Your task to perform on an android device: open app "Duolingo: language lessons" (install if not already installed) and enter user name: "omens@gmail.com" and password: "casks" Image 0: 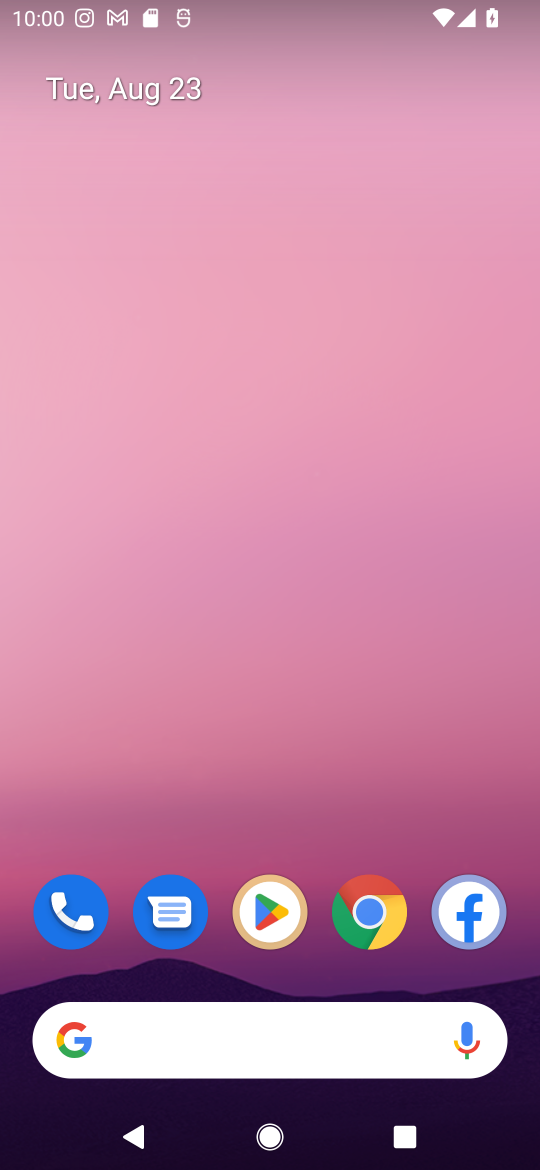
Step 0: click (272, 917)
Your task to perform on an android device: open app "Duolingo: language lessons" (install if not already installed) and enter user name: "omens@gmail.com" and password: "casks" Image 1: 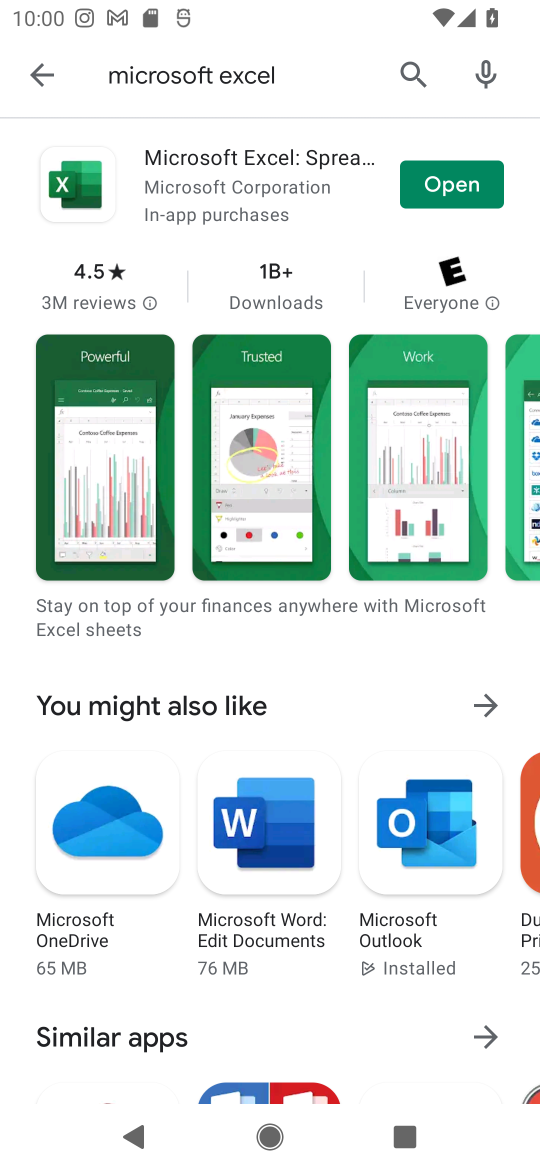
Step 1: click (407, 63)
Your task to perform on an android device: open app "Duolingo: language lessons" (install if not already installed) and enter user name: "omens@gmail.com" and password: "casks" Image 2: 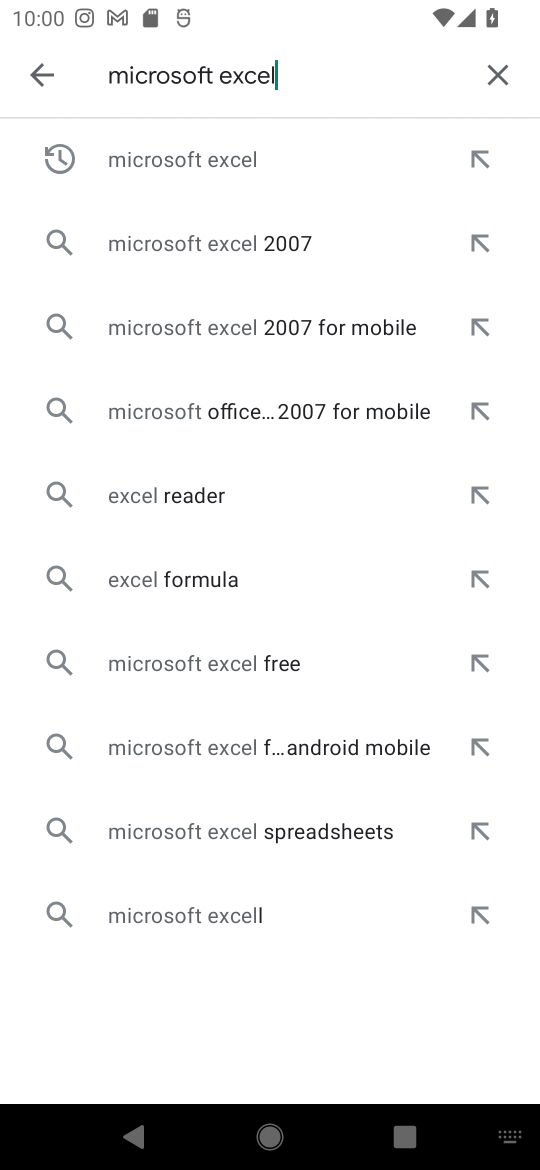
Step 2: click (495, 64)
Your task to perform on an android device: open app "Duolingo: language lessons" (install if not already installed) and enter user name: "omens@gmail.com" and password: "casks" Image 3: 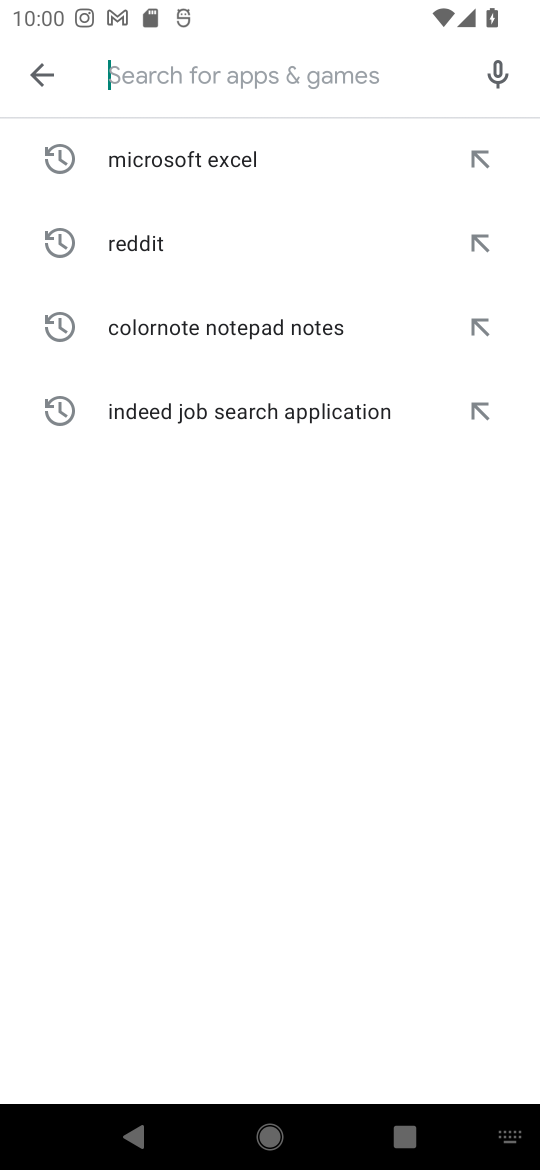
Step 3: type "Duolingo: language lessons"
Your task to perform on an android device: open app "Duolingo: language lessons" (install if not already installed) and enter user name: "omens@gmail.com" and password: "casks" Image 4: 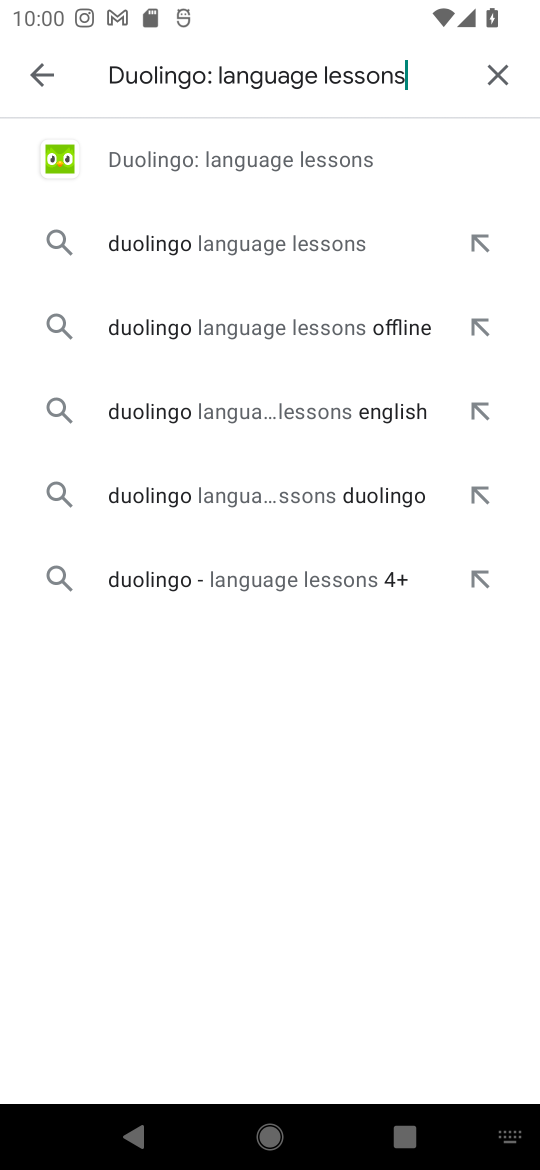
Step 4: click (313, 157)
Your task to perform on an android device: open app "Duolingo: language lessons" (install if not already installed) and enter user name: "omens@gmail.com" and password: "casks" Image 5: 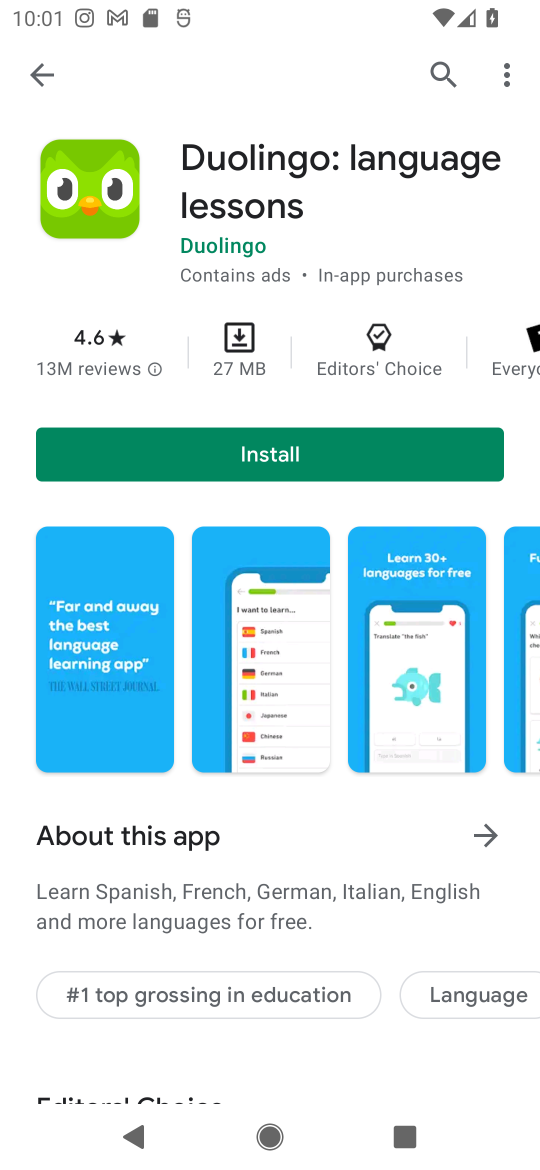
Step 5: click (263, 473)
Your task to perform on an android device: open app "Duolingo: language lessons" (install if not already installed) and enter user name: "omens@gmail.com" and password: "casks" Image 6: 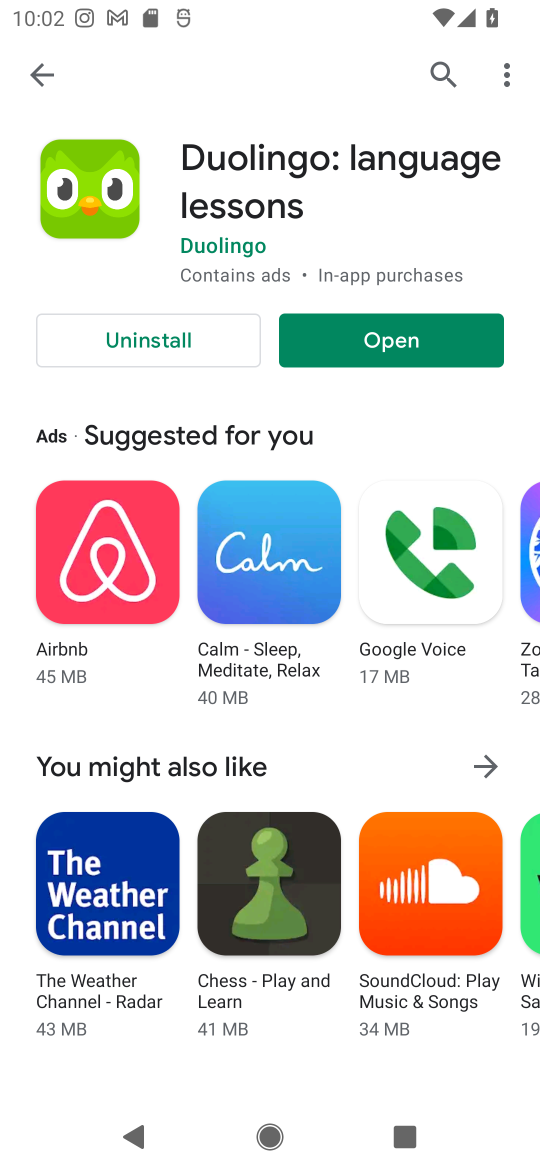
Step 6: click (392, 338)
Your task to perform on an android device: open app "Duolingo: language lessons" (install if not already installed) and enter user name: "omens@gmail.com" and password: "casks" Image 7: 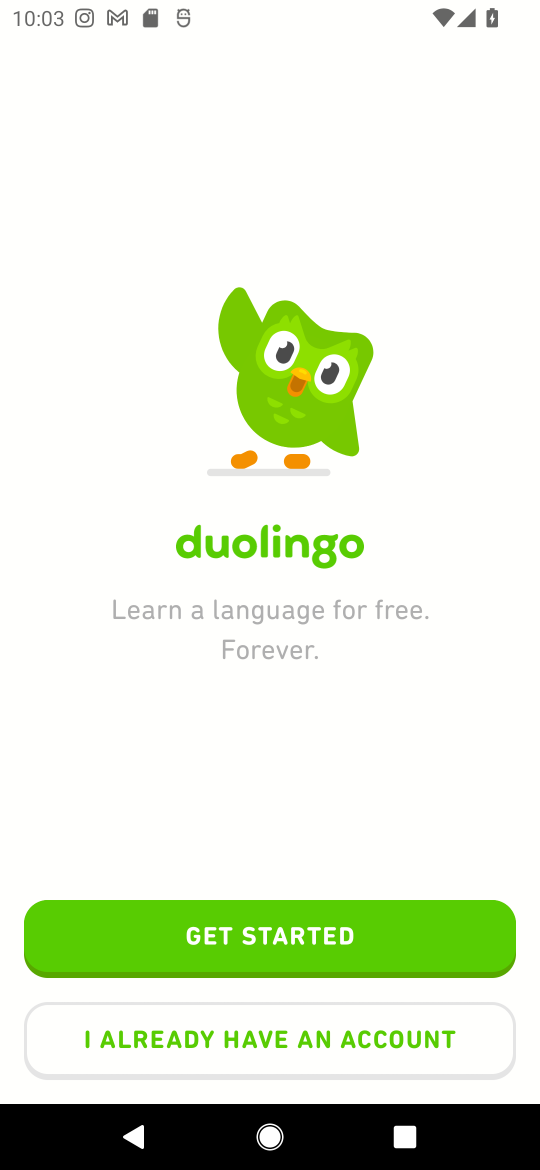
Step 7: click (242, 1022)
Your task to perform on an android device: open app "Duolingo: language lessons" (install if not already installed) and enter user name: "omens@gmail.com" and password: "casks" Image 8: 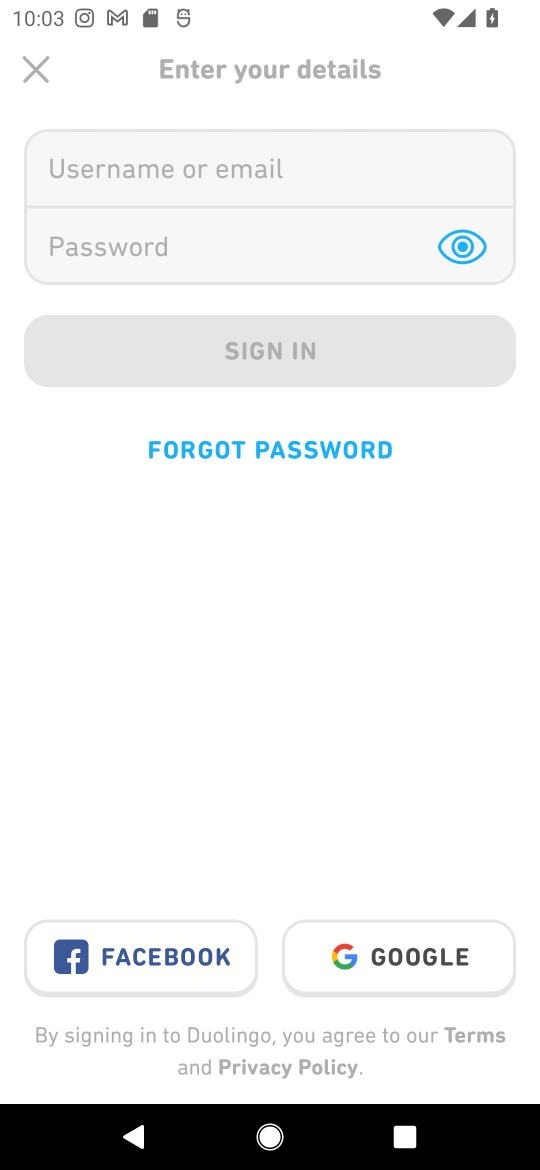
Step 8: click (147, 163)
Your task to perform on an android device: open app "Duolingo: language lessons" (install if not already installed) and enter user name: "omens@gmail.com" and password: "casks" Image 9: 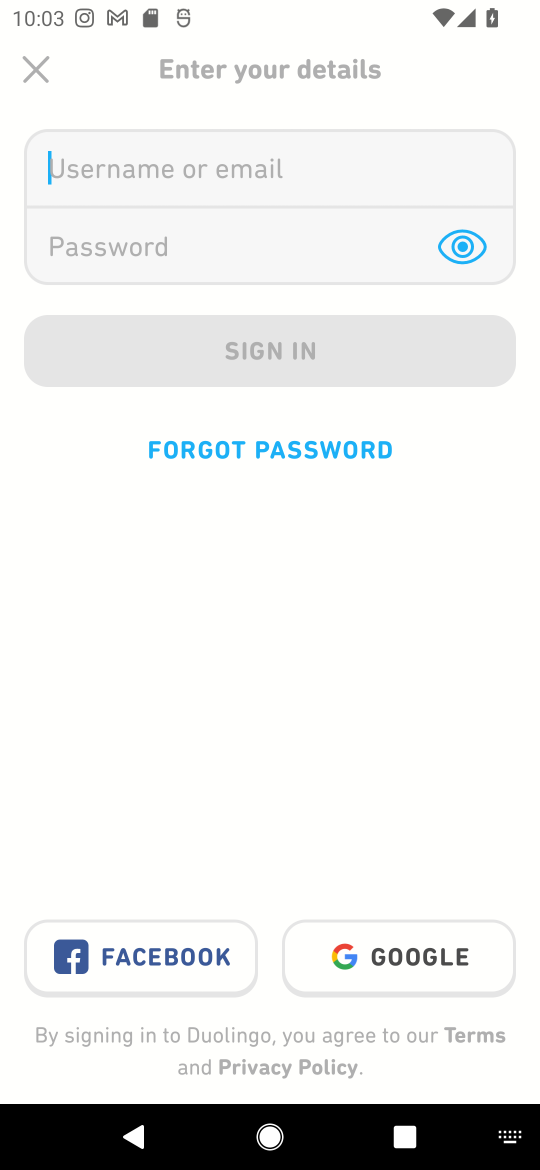
Step 9: type "Duolingo: language lesson"
Your task to perform on an android device: open app "Duolingo: language lessons" (install if not already installed) and enter user name: "omens@gmail.com" and password: "casks" Image 10: 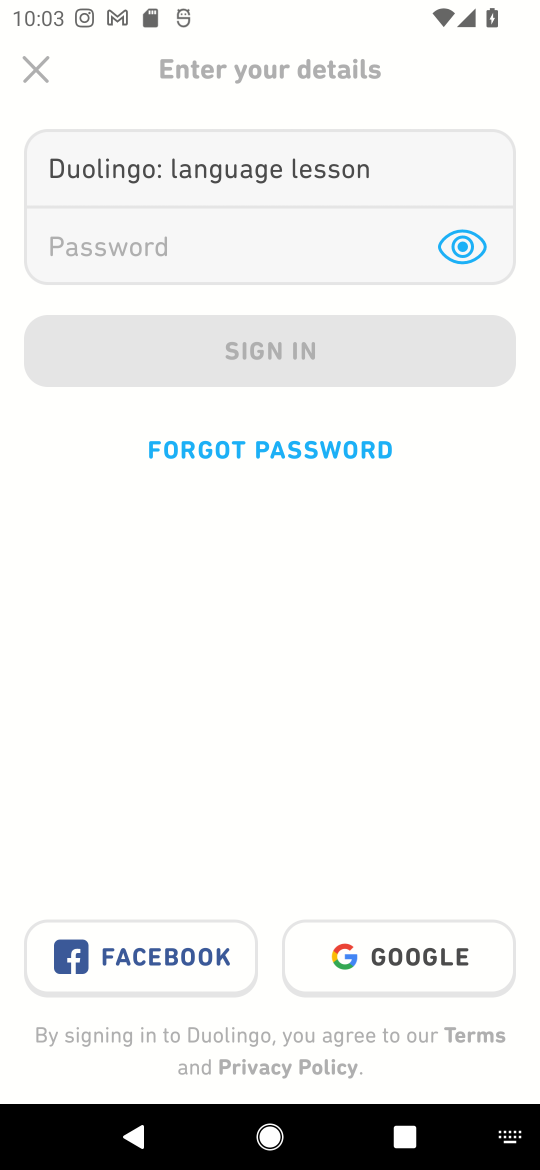
Step 10: click (219, 234)
Your task to perform on an android device: open app "Duolingo: language lessons" (install if not already installed) and enter user name: "omens@gmail.com" and password: "casks" Image 11: 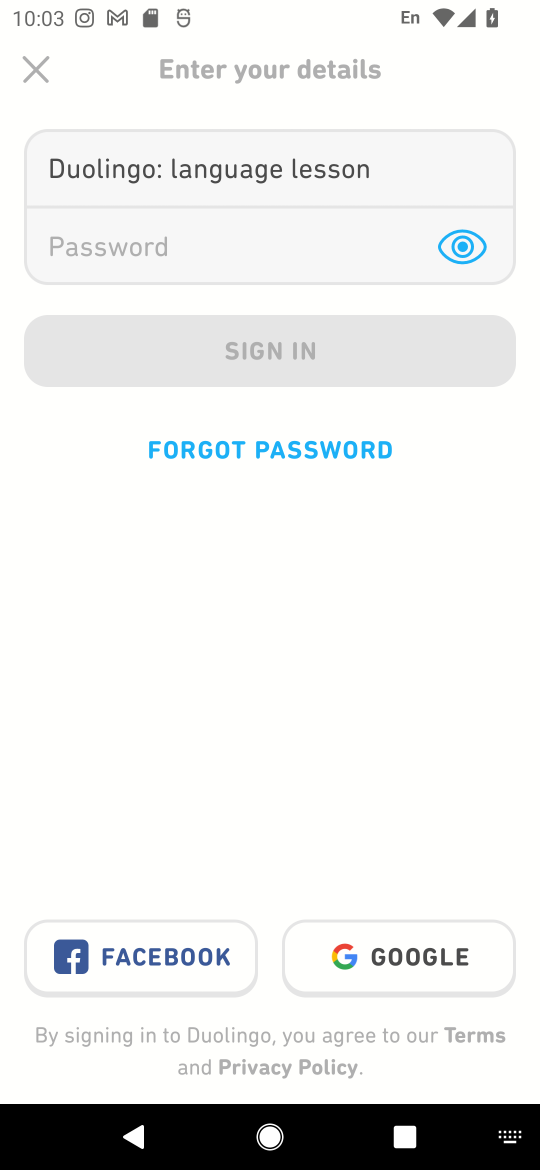
Step 11: type "casks"
Your task to perform on an android device: open app "Duolingo: language lessons" (install if not already installed) and enter user name: "omens@gmail.com" and password: "casks" Image 12: 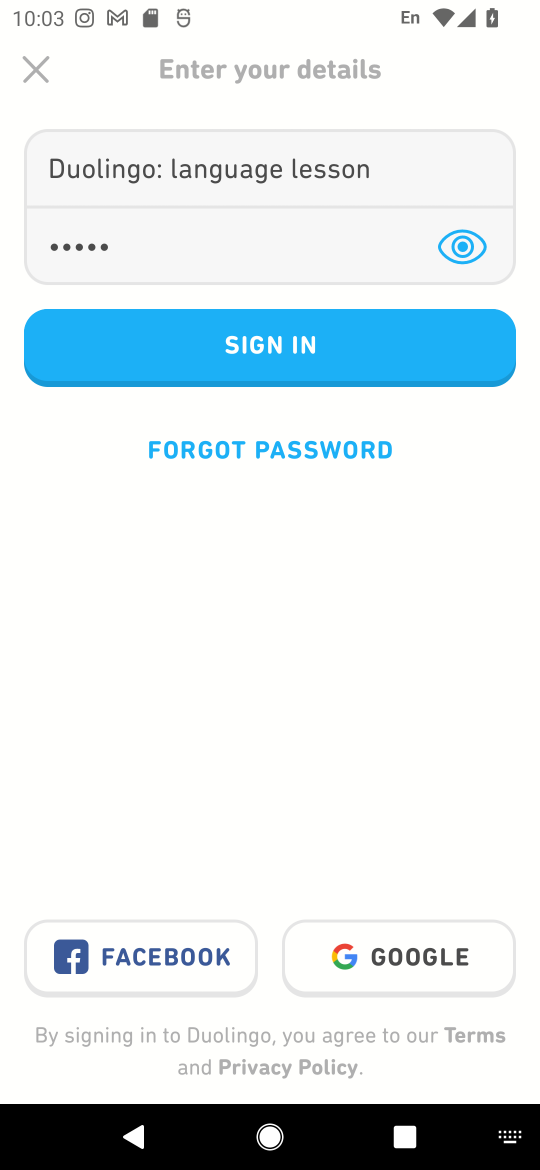
Step 12: task complete